Your task to perform on an android device: Open Google Chrome Image 0: 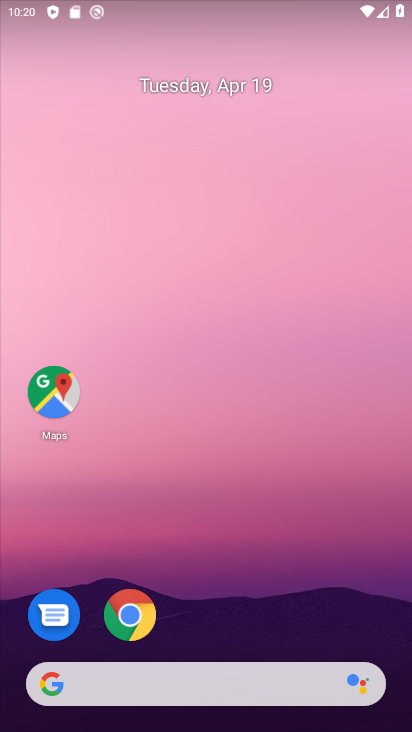
Step 0: click (125, 611)
Your task to perform on an android device: Open Google Chrome Image 1: 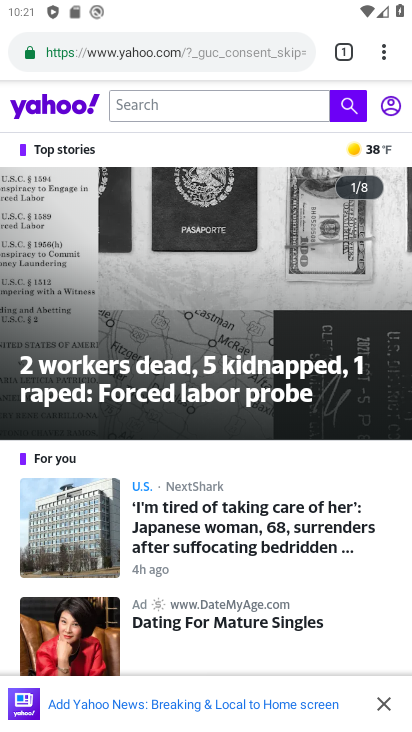
Step 1: task complete